Your task to perform on an android device: Open calendar and show me the third week of next month Image 0: 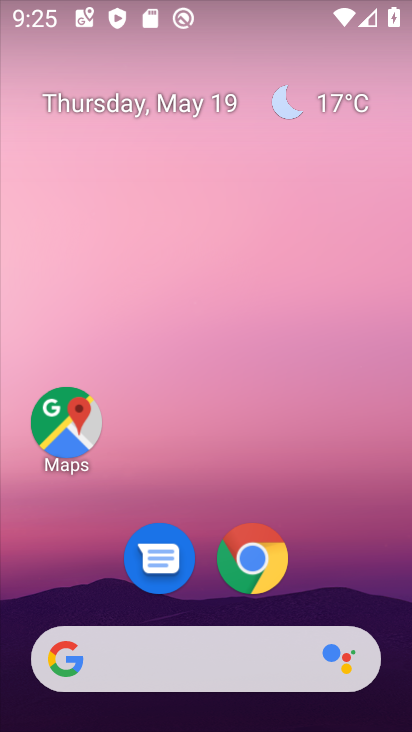
Step 0: drag from (229, 715) to (233, 185)
Your task to perform on an android device: Open calendar and show me the third week of next month Image 1: 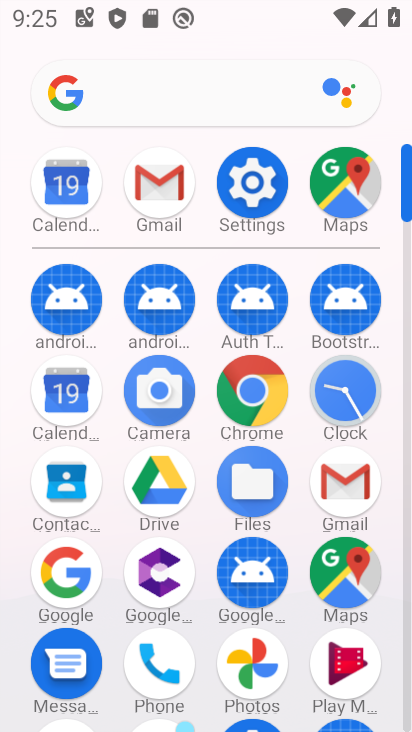
Step 1: click (58, 393)
Your task to perform on an android device: Open calendar and show me the third week of next month Image 2: 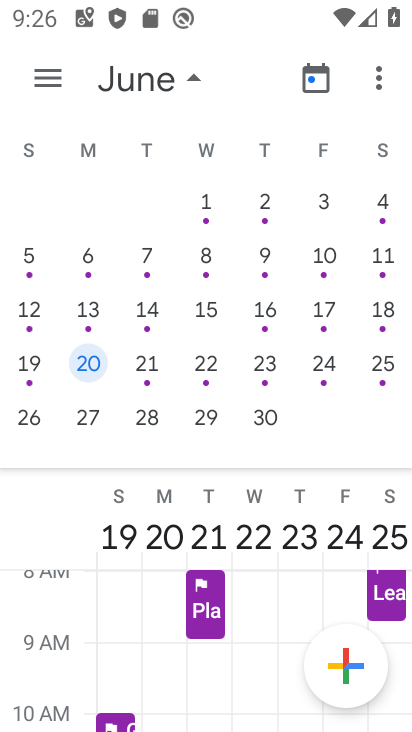
Step 2: click (87, 360)
Your task to perform on an android device: Open calendar and show me the third week of next month Image 3: 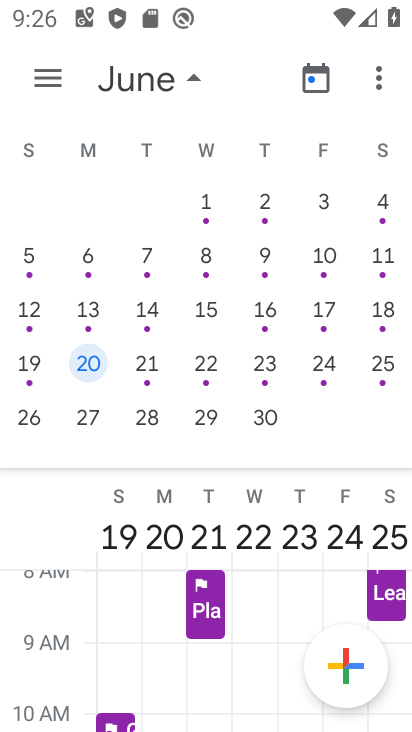
Step 3: click (194, 78)
Your task to perform on an android device: Open calendar and show me the third week of next month Image 4: 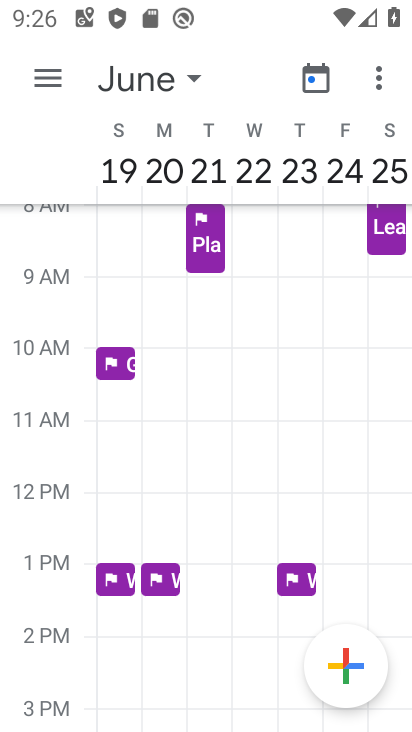
Step 4: task complete